Your task to perform on an android device: Show me productivity apps on the Play Store Image 0: 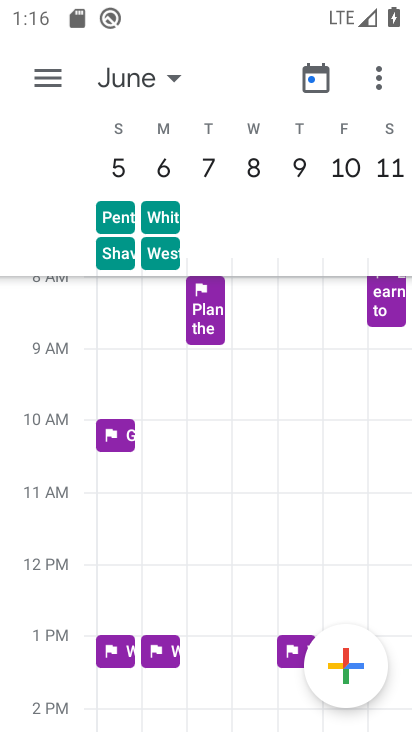
Step 0: press home button
Your task to perform on an android device: Show me productivity apps on the Play Store Image 1: 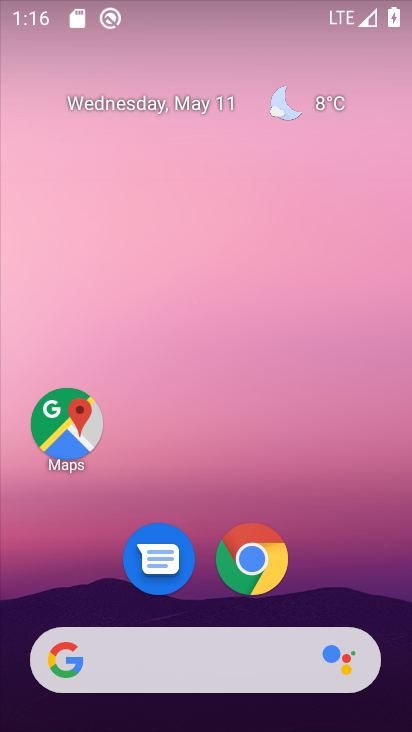
Step 1: drag from (188, 714) to (189, 58)
Your task to perform on an android device: Show me productivity apps on the Play Store Image 2: 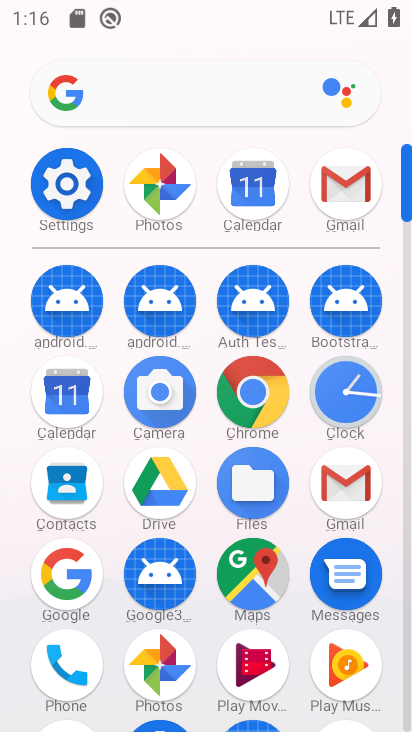
Step 2: drag from (190, 632) to (208, 266)
Your task to perform on an android device: Show me productivity apps on the Play Store Image 3: 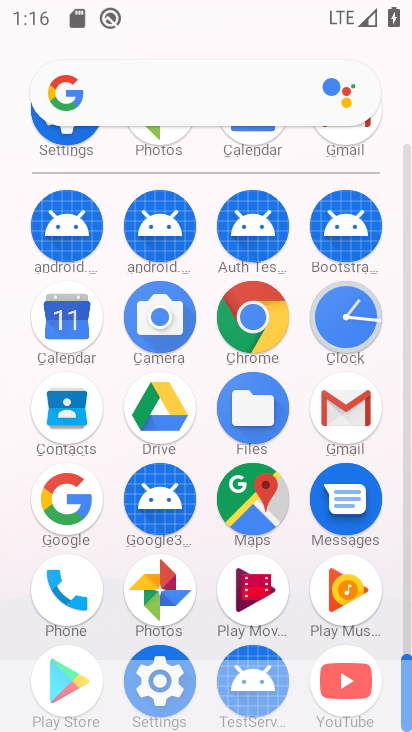
Step 3: click (72, 652)
Your task to perform on an android device: Show me productivity apps on the Play Store Image 4: 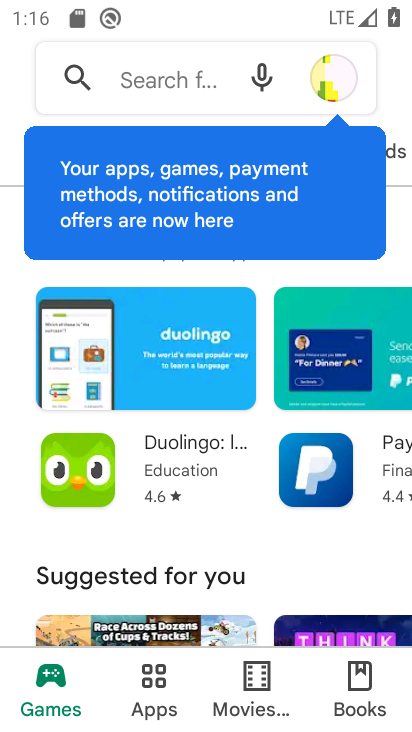
Step 4: click (160, 676)
Your task to perform on an android device: Show me productivity apps on the Play Store Image 5: 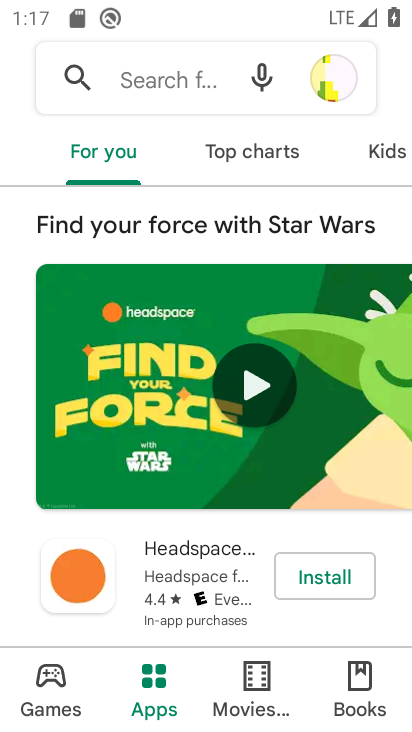
Step 5: drag from (300, 146) to (64, 137)
Your task to perform on an android device: Show me productivity apps on the Play Store Image 6: 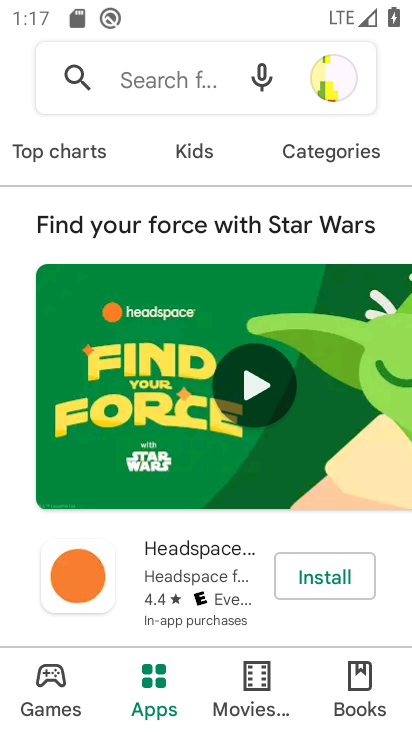
Step 6: click (311, 149)
Your task to perform on an android device: Show me productivity apps on the Play Store Image 7: 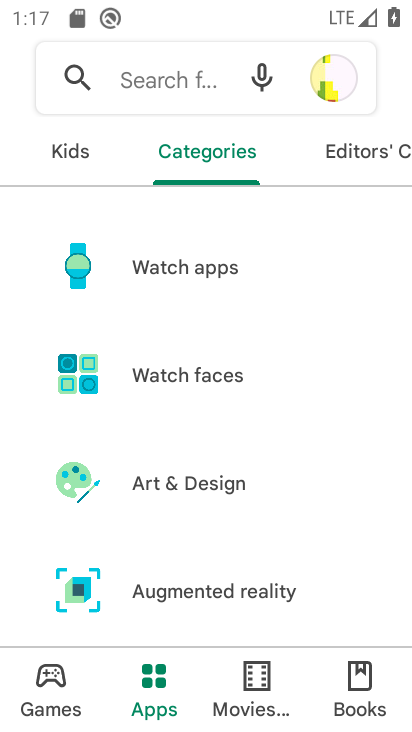
Step 7: drag from (176, 619) to (214, 272)
Your task to perform on an android device: Show me productivity apps on the Play Store Image 8: 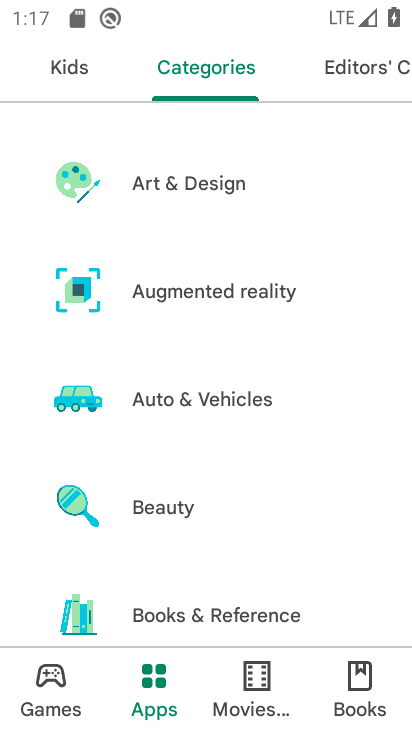
Step 8: drag from (197, 618) to (223, 238)
Your task to perform on an android device: Show me productivity apps on the Play Store Image 9: 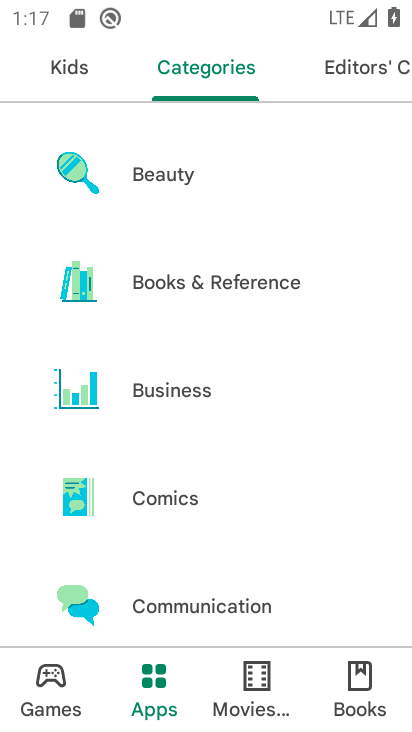
Step 9: drag from (177, 613) to (173, 165)
Your task to perform on an android device: Show me productivity apps on the Play Store Image 10: 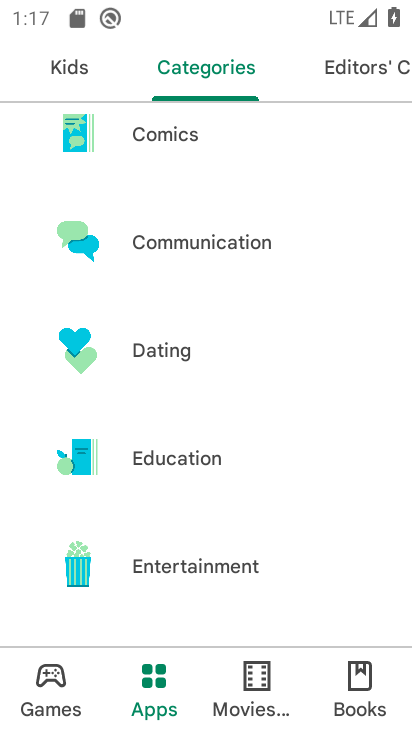
Step 10: drag from (155, 615) to (204, 199)
Your task to perform on an android device: Show me productivity apps on the Play Store Image 11: 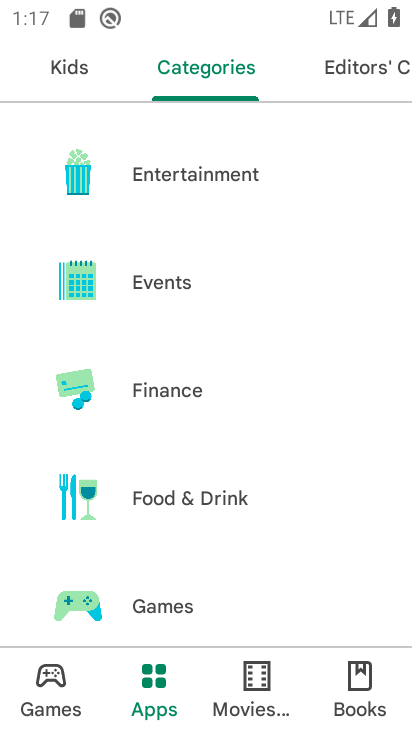
Step 11: drag from (196, 611) to (215, 192)
Your task to perform on an android device: Show me productivity apps on the Play Store Image 12: 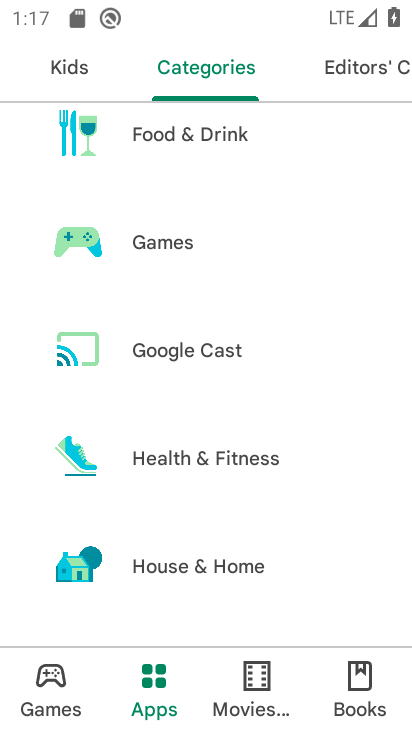
Step 12: drag from (201, 545) to (206, 254)
Your task to perform on an android device: Show me productivity apps on the Play Store Image 13: 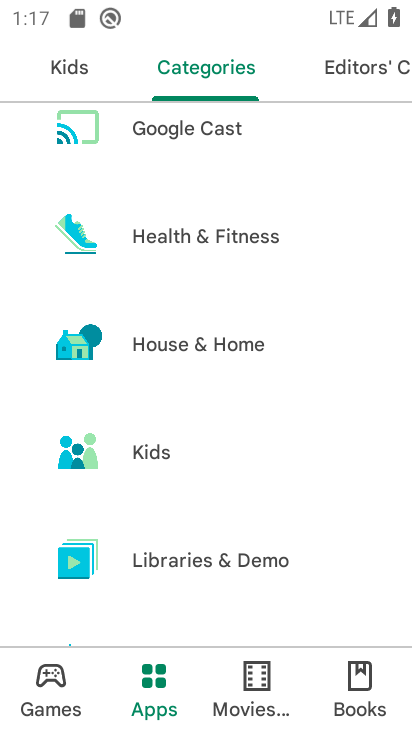
Step 13: drag from (216, 539) to (221, 194)
Your task to perform on an android device: Show me productivity apps on the Play Store Image 14: 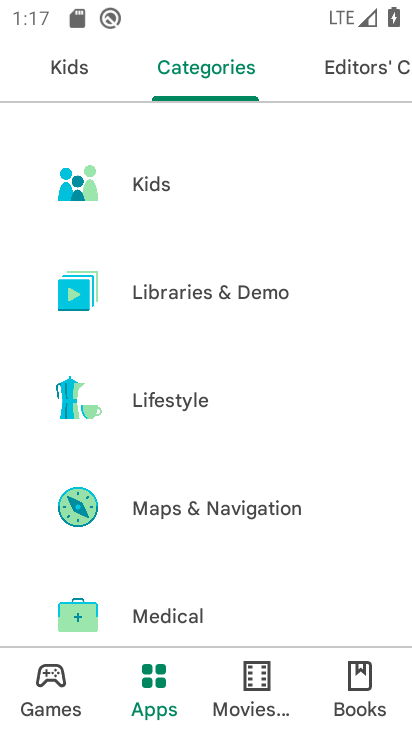
Step 14: drag from (187, 583) to (193, 191)
Your task to perform on an android device: Show me productivity apps on the Play Store Image 15: 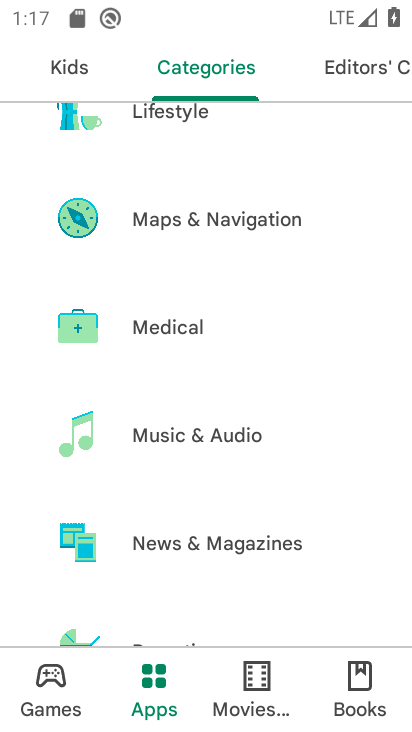
Step 15: drag from (200, 594) to (200, 162)
Your task to perform on an android device: Show me productivity apps on the Play Store Image 16: 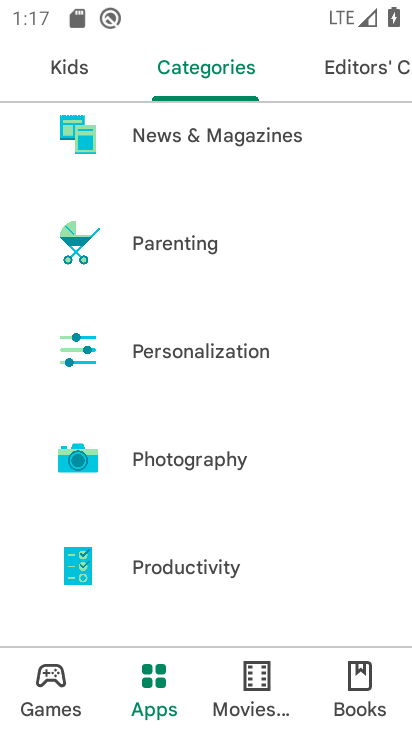
Step 16: click (198, 572)
Your task to perform on an android device: Show me productivity apps on the Play Store Image 17: 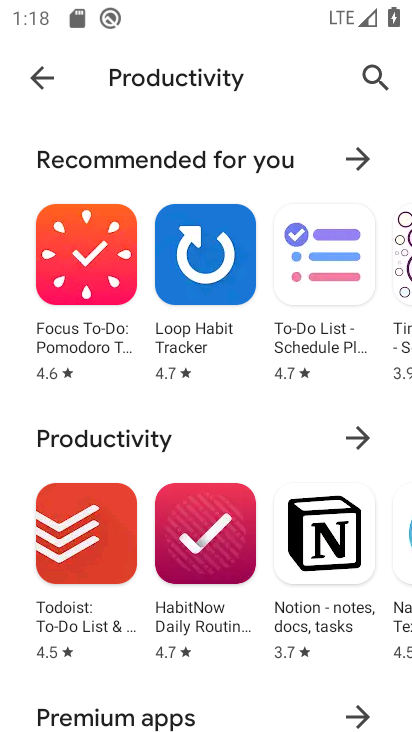
Step 17: task complete